Your task to perform on an android device: turn on translation in the chrome app Image 0: 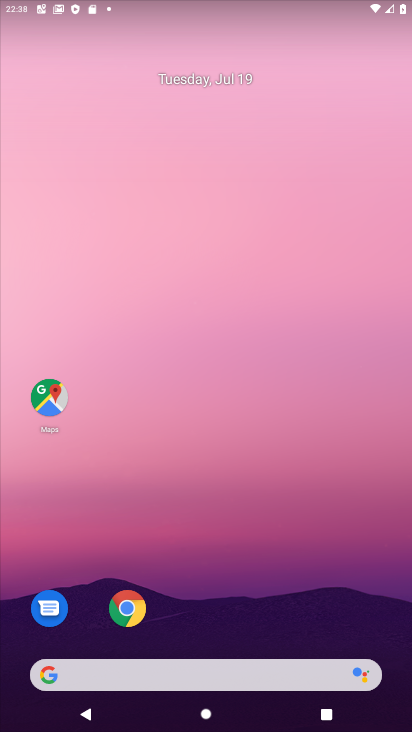
Step 0: drag from (296, 611) to (259, 78)
Your task to perform on an android device: turn on translation in the chrome app Image 1: 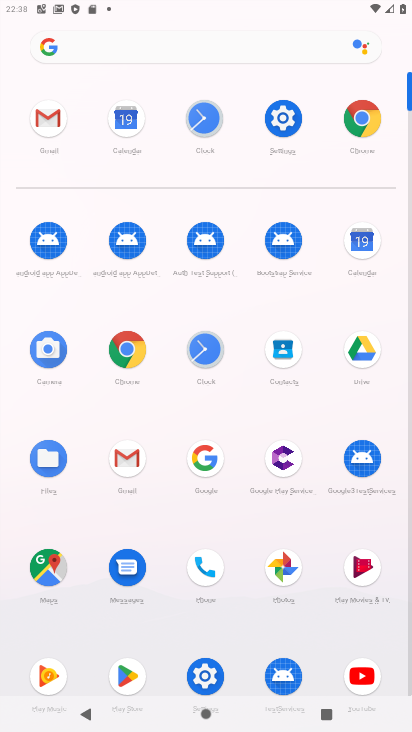
Step 1: click (363, 115)
Your task to perform on an android device: turn on translation in the chrome app Image 2: 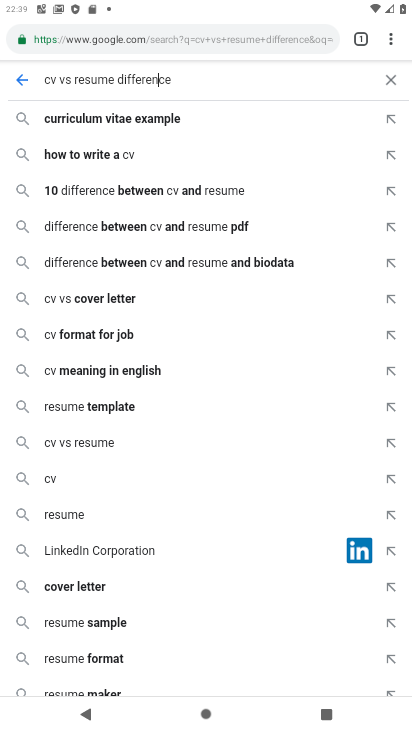
Step 2: drag from (392, 39) to (275, 429)
Your task to perform on an android device: turn on translation in the chrome app Image 3: 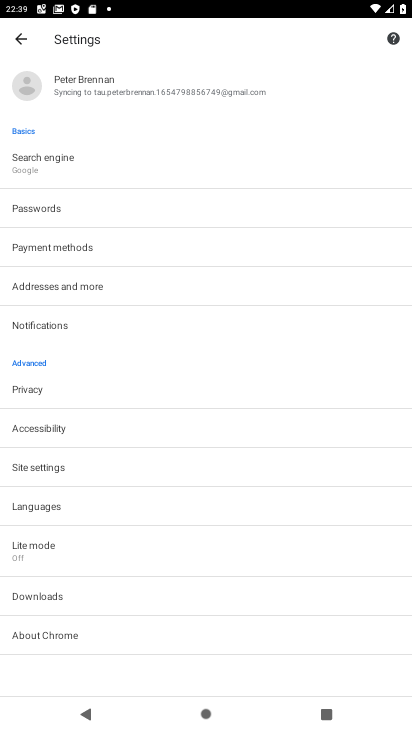
Step 3: click (54, 510)
Your task to perform on an android device: turn on translation in the chrome app Image 4: 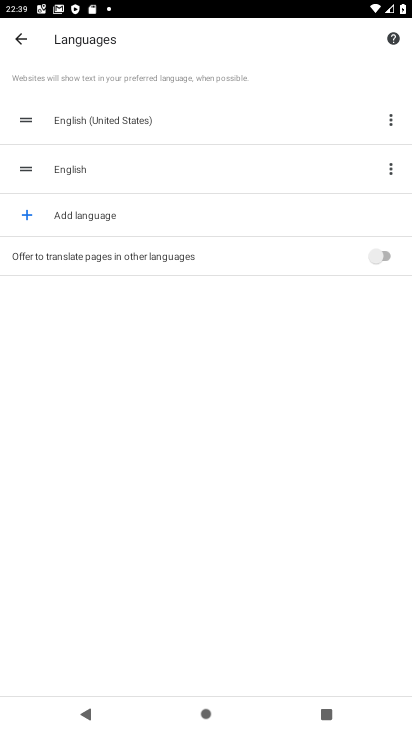
Step 4: click (354, 255)
Your task to perform on an android device: turn on translation in the chrome app Image 5: 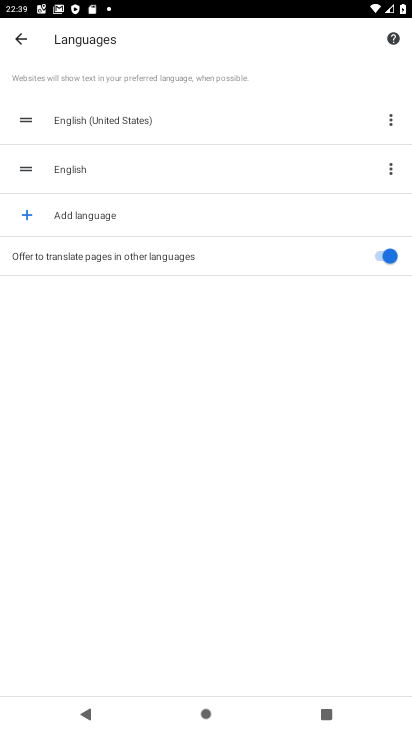
Step 5: task complete